Your task to perform on an android device: add a contact in the contacts app Image 0: 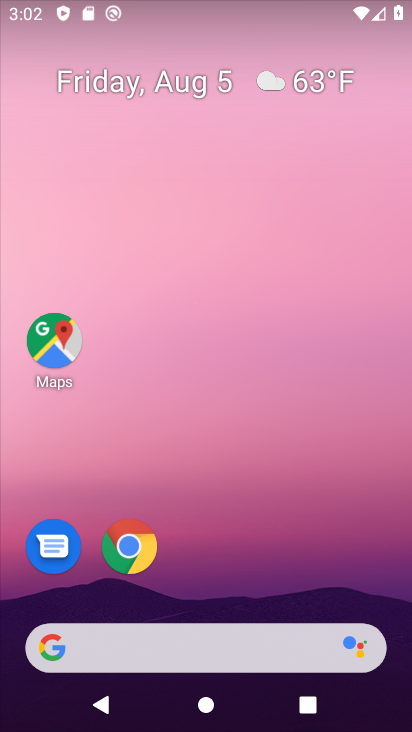
Step 0: press home button
Your task to perform on an android device: add a contact in the contacts app Image 1: 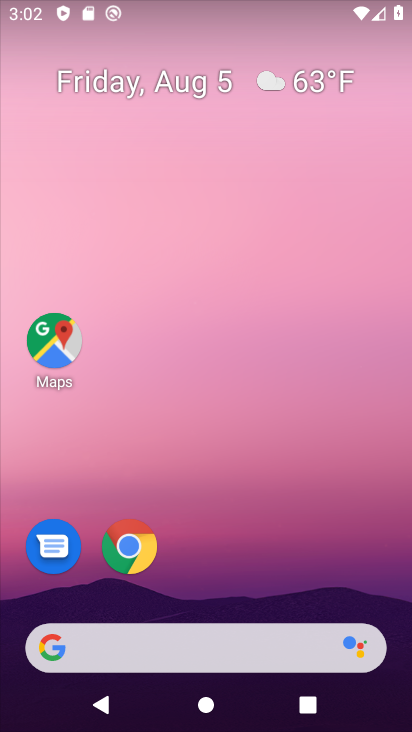
Step 1: drag from (315, 579) to (312, 109)
Your task to perform on an android device: add a contact in the contacts app Image 2: 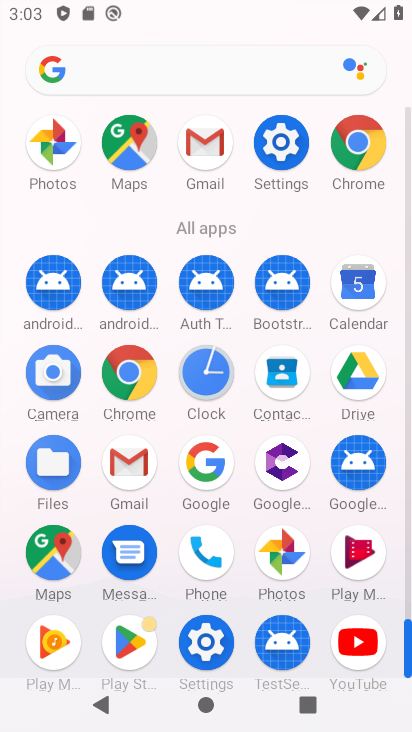
Step 2: drag from (158, 556) to (170, 366)
Your task to perform on an android device: add a contact in the contacts app Image 3: 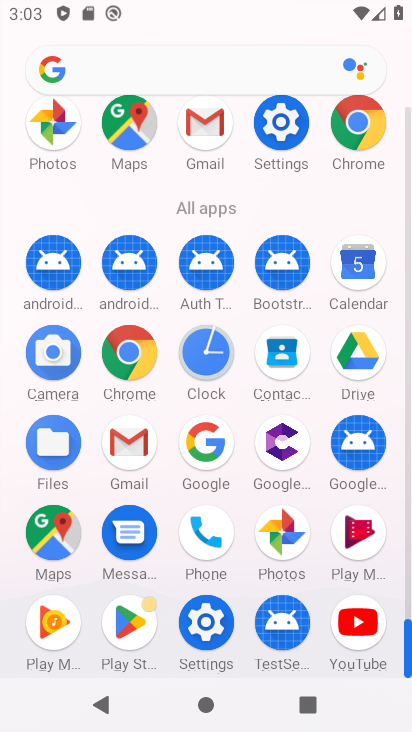
Step 3: click (287, 346)
Your task to perform on an android device: add a contact in the contacts app Image 4: 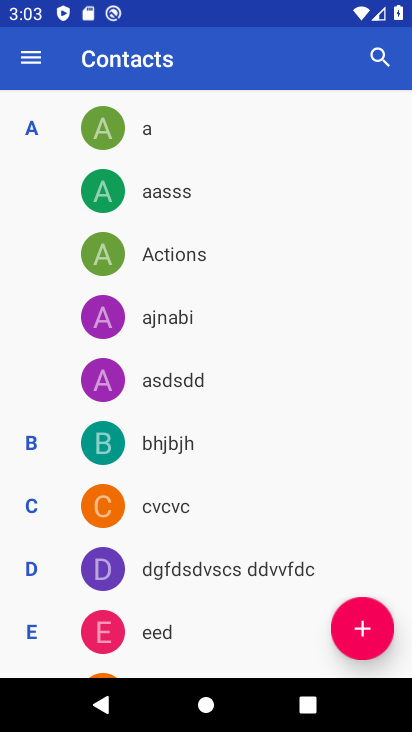
Step 4: click (353, 632)
Your task to perform on an android device: add a contact in the contacts app Image 5: 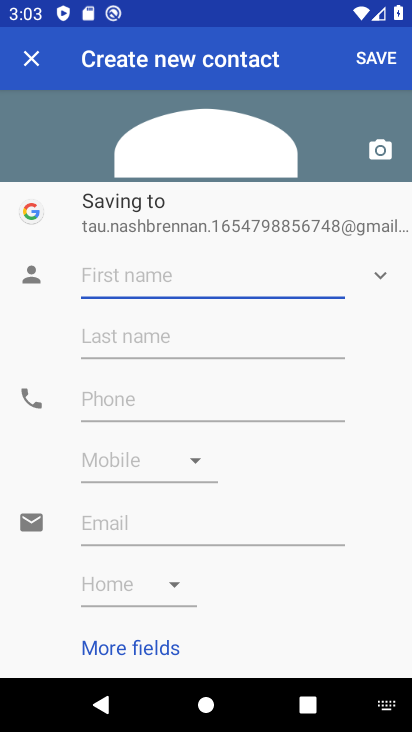
Step 5: click (292, 285)
Your task to perform on an android device: add a contact in the contacts app Image 6: 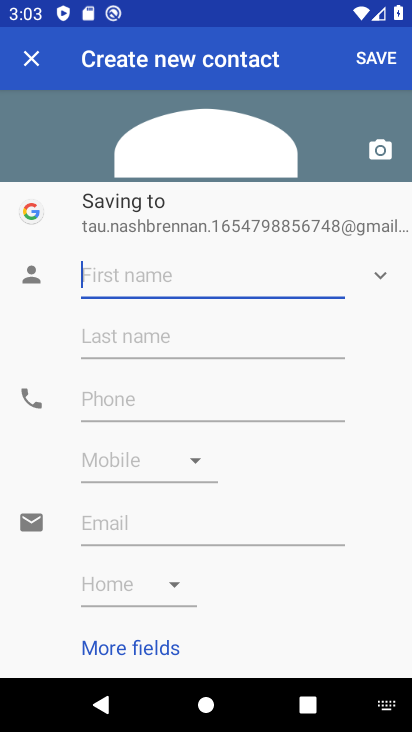
Step 6: type "lolo"
Your task to perform on an android device: add a contact in the contacts app Image 7: 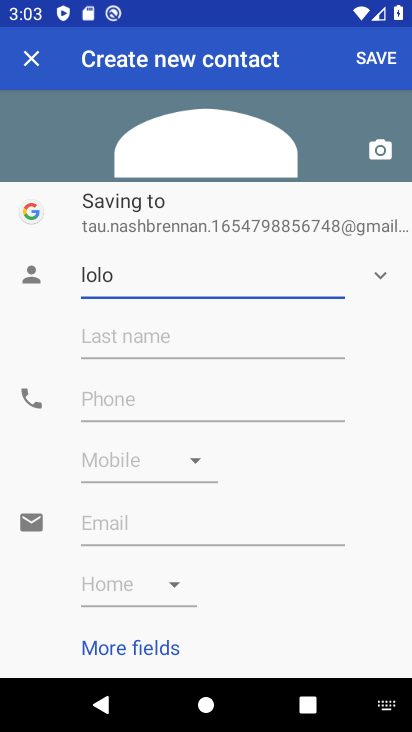
Step 7: click (281, 395)
Your task to perform on an android device: add a contact in the contacts app Image 8: 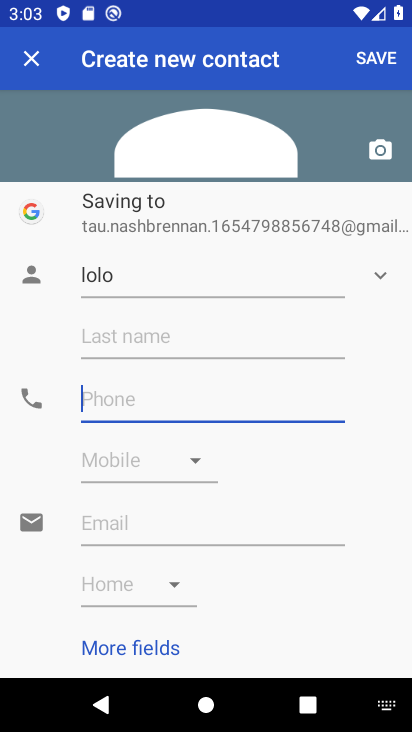
Step 8: type "12345678890"
Your task to perform on an android device: add a contact in the contacts app Image 9: 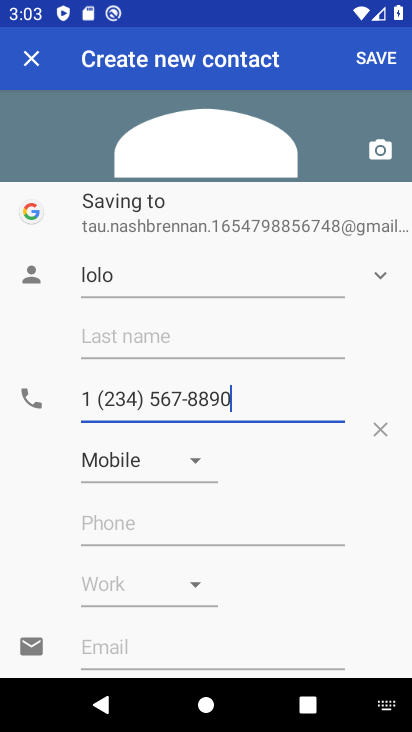
Step 9: click (386, 53)
Your task to perform on an android device: add a contact in the contacts app Image 10: 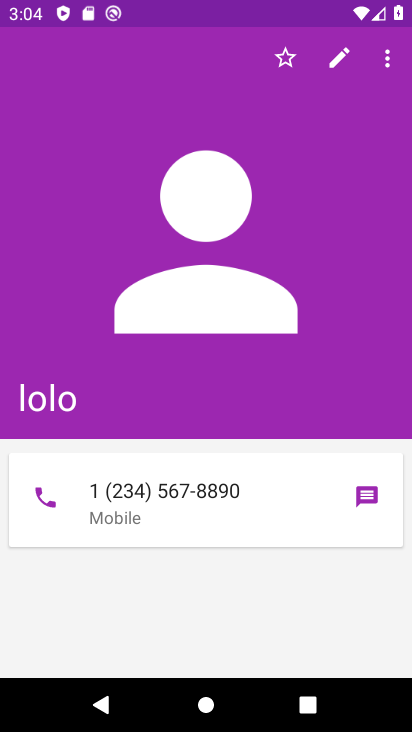
Step 10: task complete